Your task to perform on an android device: check storage Image 0: 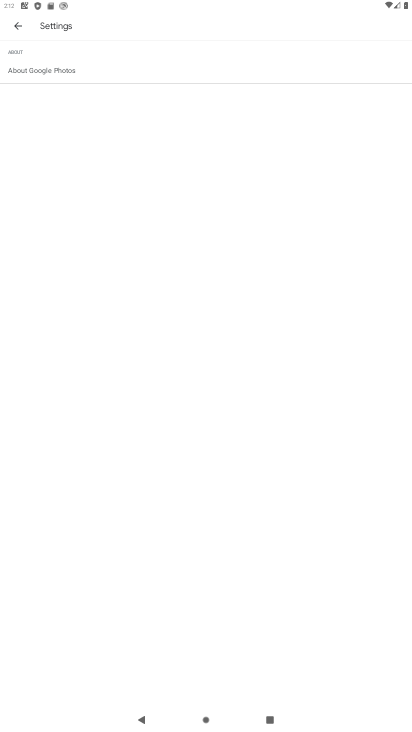
Step 0: press home button
Your task to perform on an android device: check storage Image 1: 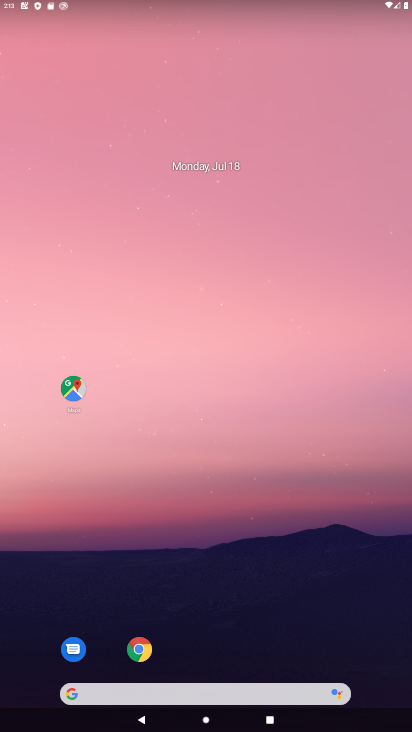
Step 1: click (219, 2)
Your task to perform on an android device: check storage Image 2: 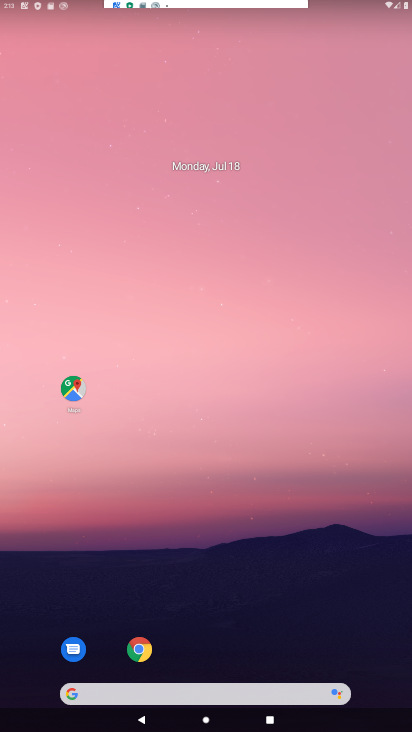
Step 2: click (229, 26)
Your task to perform on an android device: check storage Image 3: 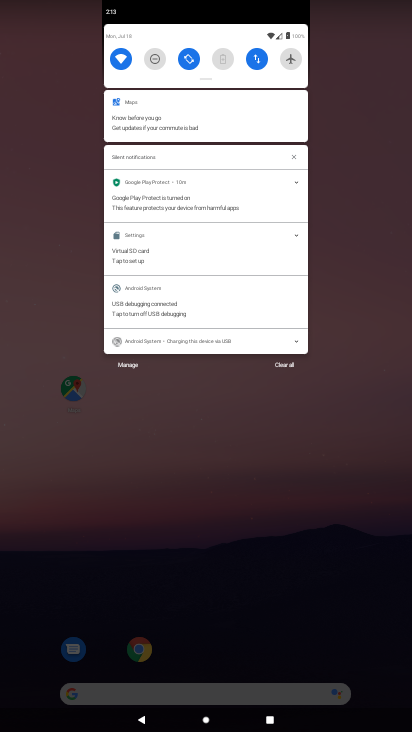
Step 3: drag from (238, 670) to (234, 12)
Your task to perform on an android device: check storage Image 4: 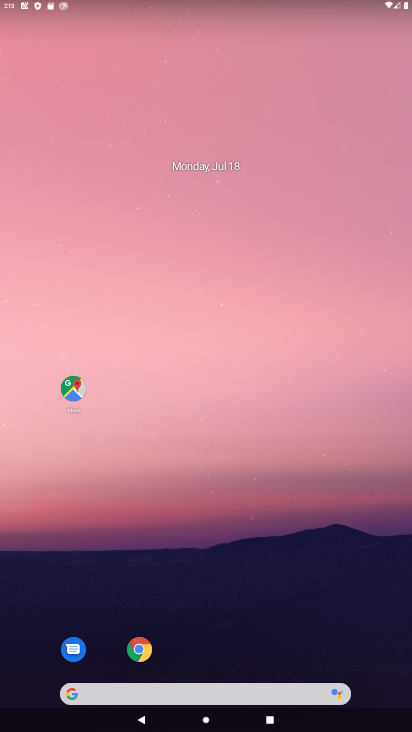
Step 4: drag from (195, 651) to (227, 5)
Your task to perform on an android device: check storage Image 5: 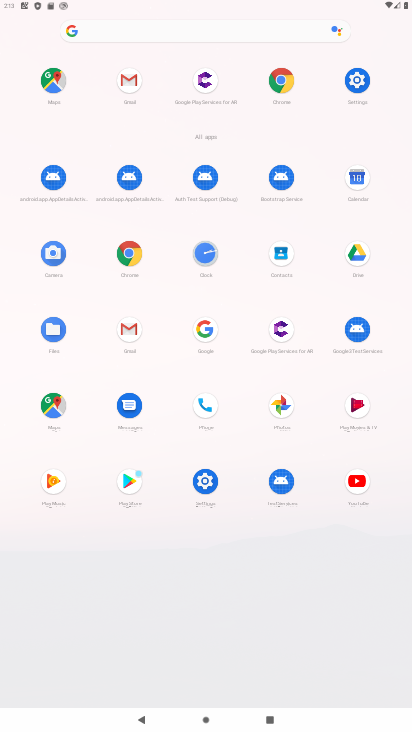
Step 5: click (208, 565)
Your task to perform on an android device: check storage Image 6: 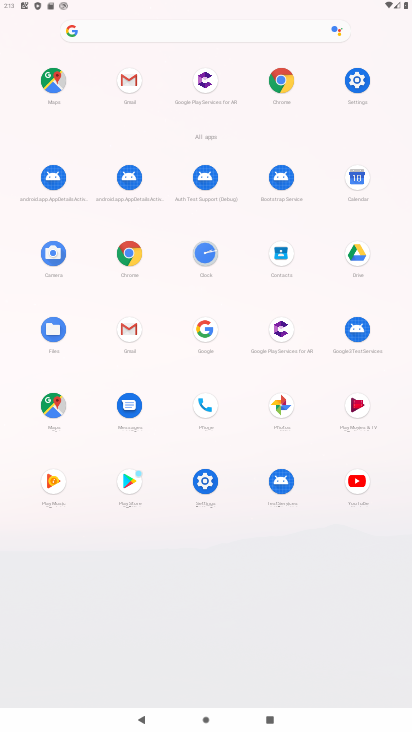
Step 6: click (209, 491)
Your task to perform on an android device: check storage Image 7: 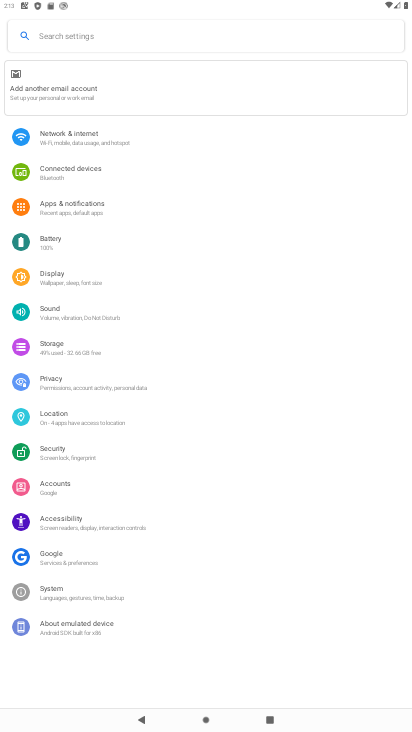
Step 7: click (210, 492)
Your task to perform on an android device: check storage Image 8: 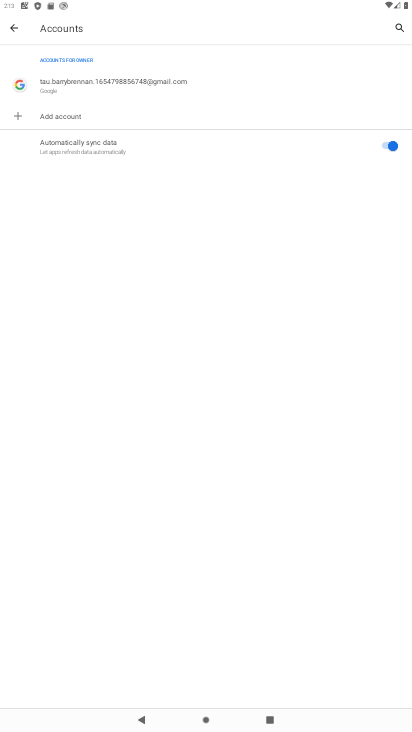
Step 8: click (15, 17)
Your task to perform on an android device: check storage Image 9: 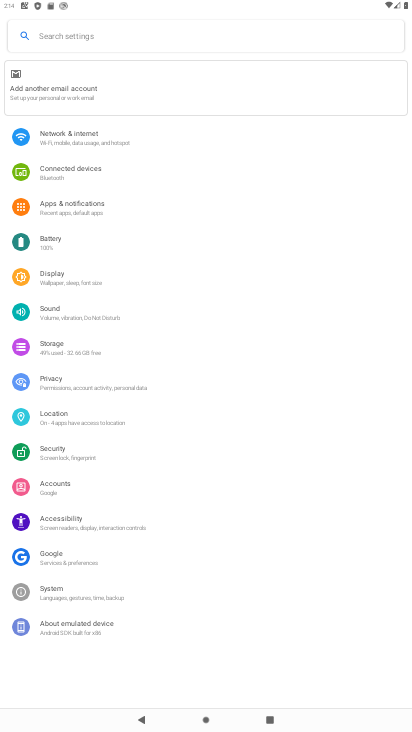
Step 9: click (96, 361)
Your task to perform on an android device: check storage Image 10: 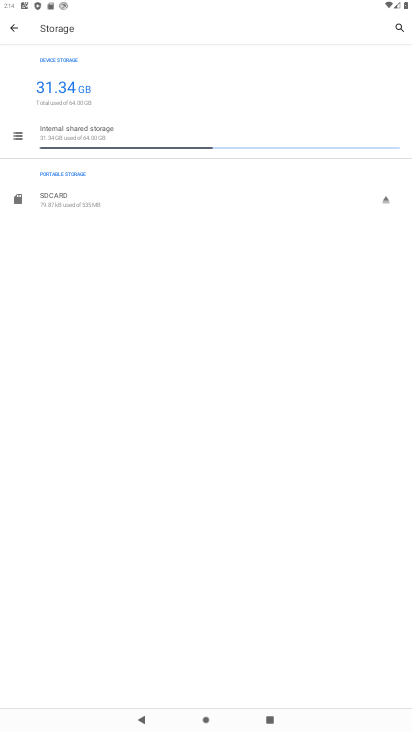
Step 10: click (72, 353)
Your task to perform on an android device: check storage Image 11: 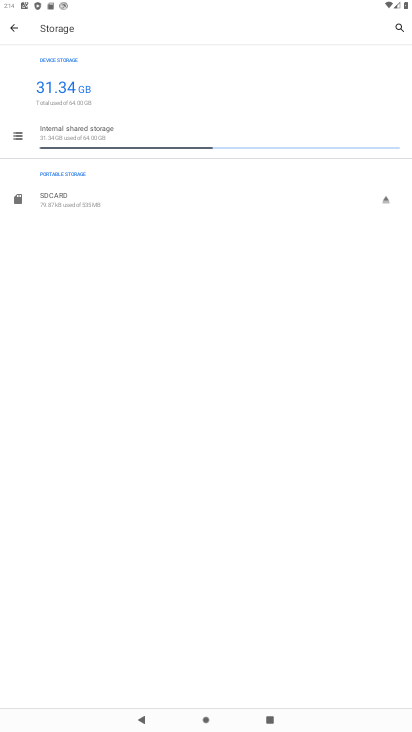
Step 11: task complete